Your task to perform on an android device: When is my next appointment? Image 0: 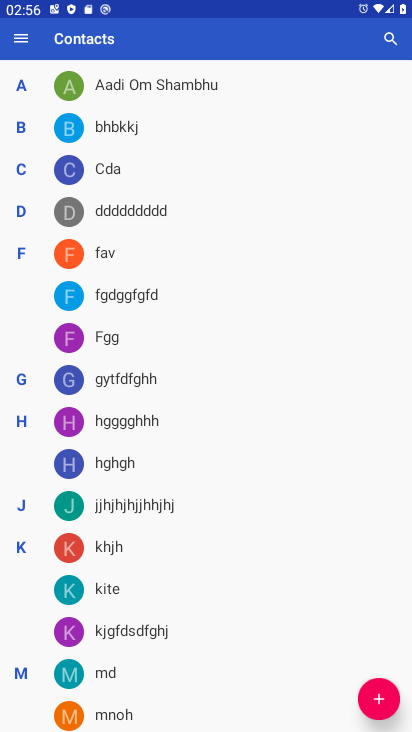
Step 0: press home button
Your task to perform on an android device: When is my next appointment? Image 1: 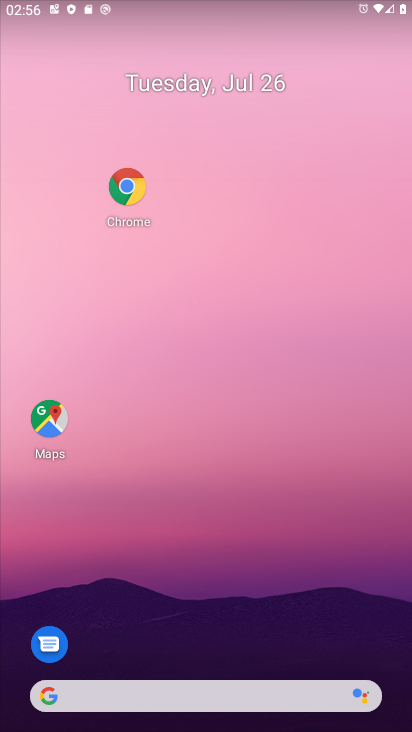
Step 1: drag from (212, 643) to (210, 263)
Your task to perform on an android device: When is my next appointment? Image 2: 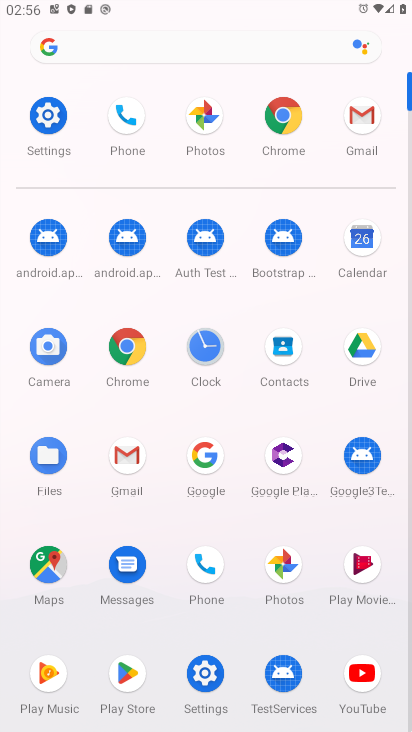
Step 2: click (373, 245)
Your task to perform on an android device: When is my next appointment? Image 3: 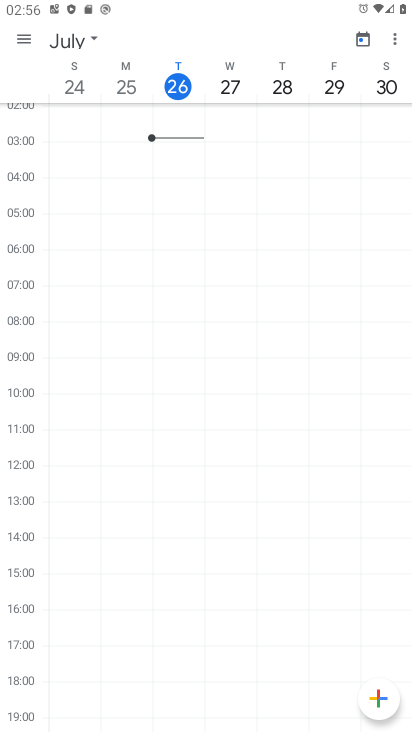
Step 3: click (181, 79)
Your task to perform on an android device: When is my next appointment? Image 4: 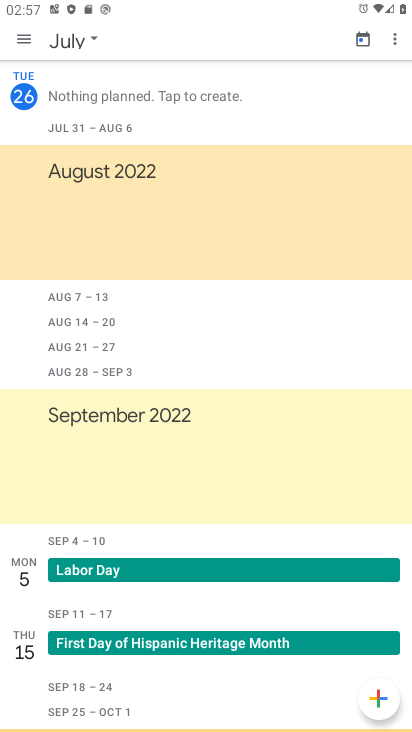
Step 4: task complete